Your task to perform on an android device: Open the web browser Image 0: 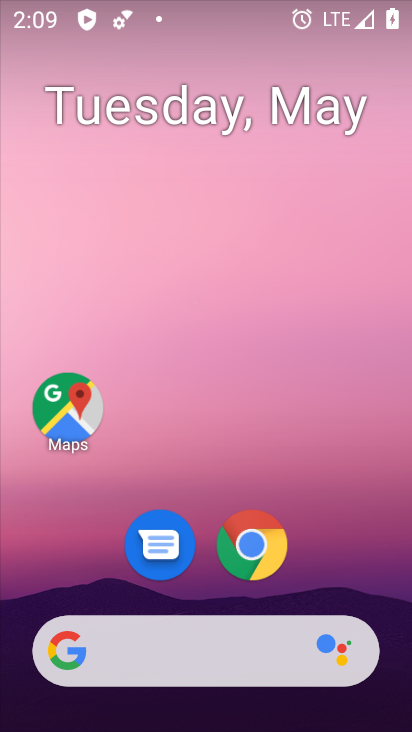
Step 0: drag from (326, 503) to (202, 15)
Your task to perform on an android device: Open the web browser Image 1: 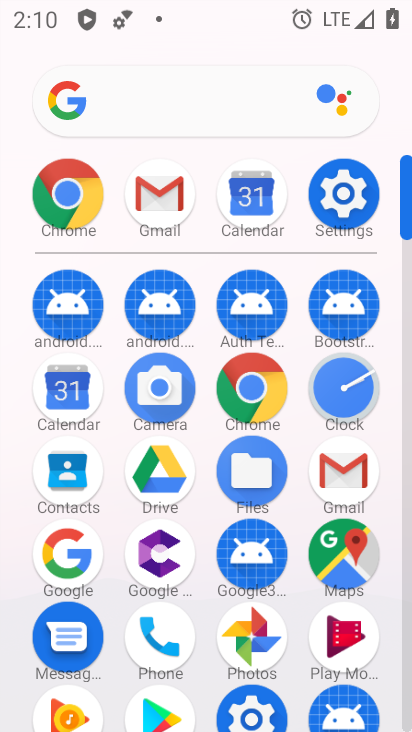
Step 1: click (254, 384)
Your task to perform on an android device: Open the web browser Image 2: 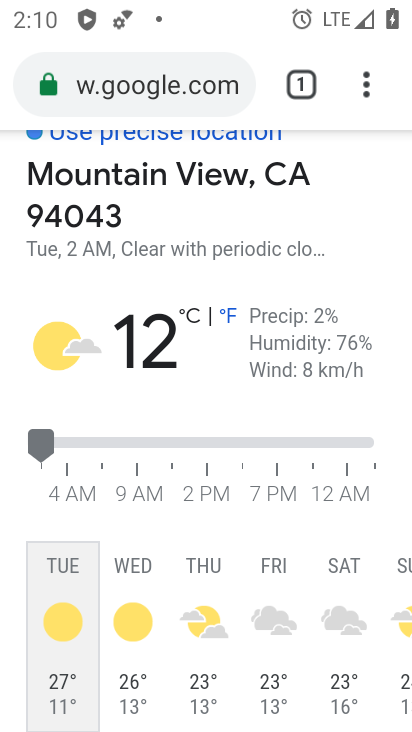
Step 2: task complete